Your task to perform on an android device: Turn off the flashlight Image 0: 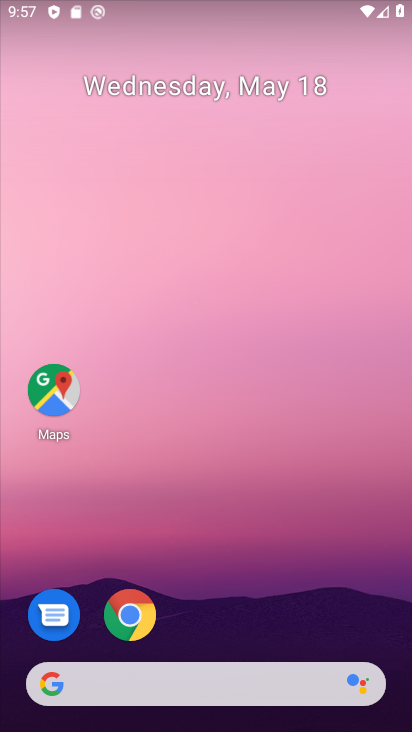
Step 0: drag from (295, 2) to (299, 491)
Your task to perform on an android device: Turn off the flashlight Image 1: 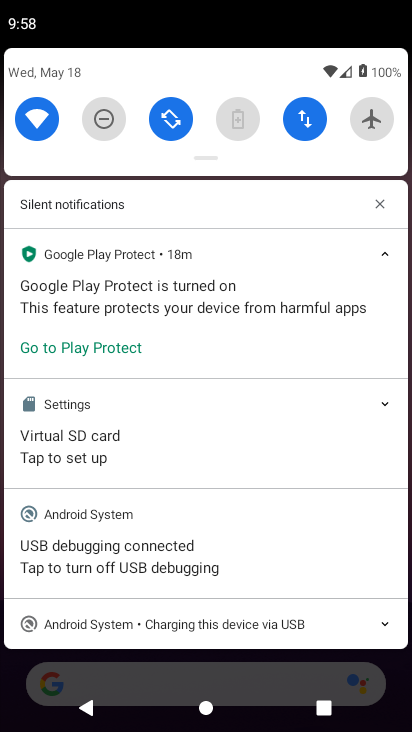
Step 1: task complete